Your task to perform on an android device: Open the calendar app, open the side menu, and click the "Day" option Image 0: 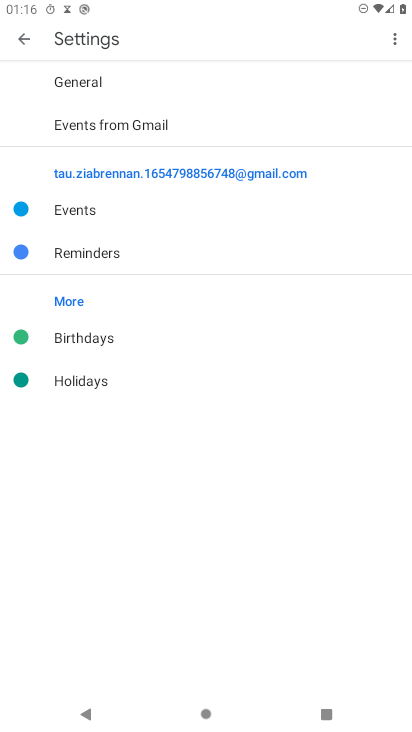
Step 0: press home button
Your task to perform on an android device: Open the calendar app, open the side menu, and click the "Day" option Image 1: 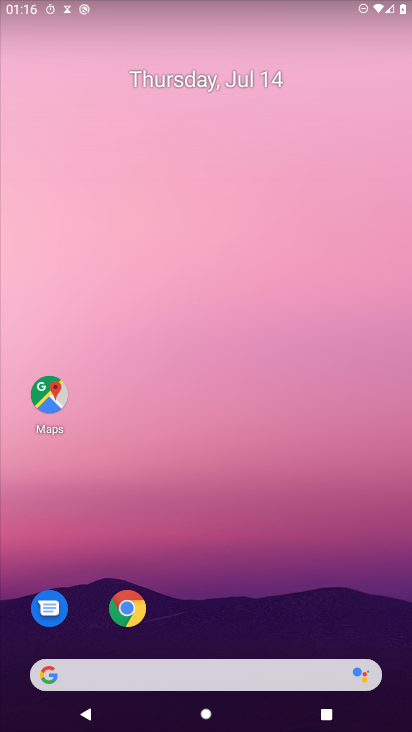
Step 1: drag from (270, 562) to (239, 84)
Your task to perform on an android device: Open the calendar app, open the side menu, and click the "Day" option Image 2: 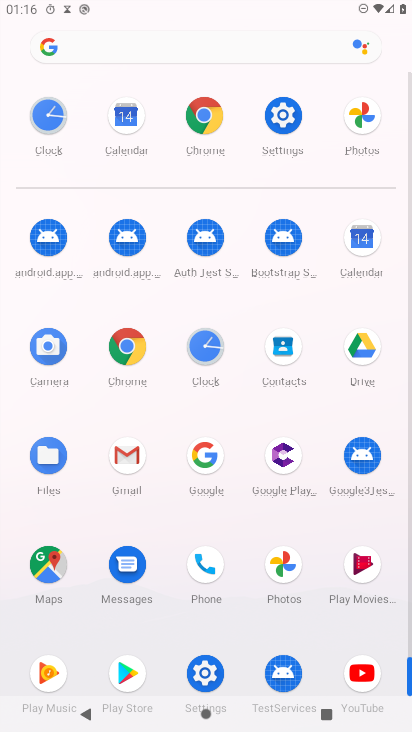
Step 2: click (351, 233)
Your task to perform on an android device: Open the calendar app, open the side menu, and click the "Day" option Image 3: 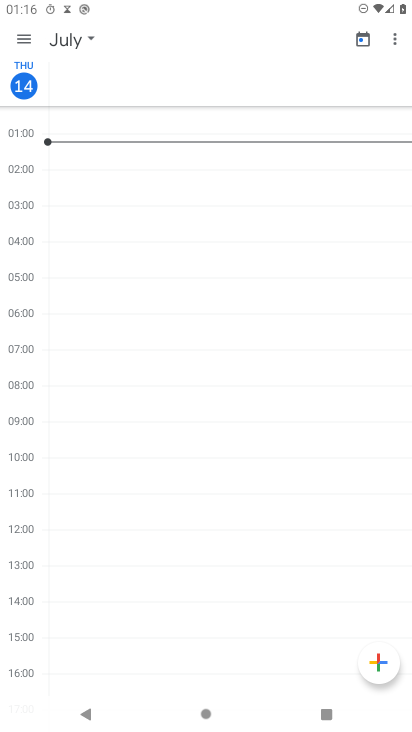
Step 3: click (30, 39)
Your task to perform on an android device: Open the calendar app, open the side menu, and click the "Day" option Image 4: 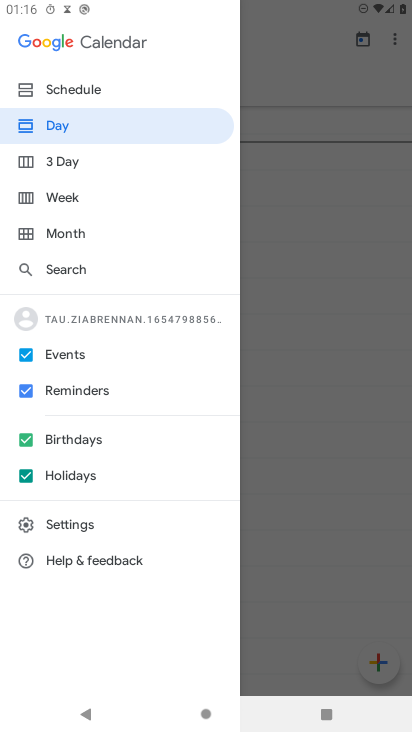
Step 4: click (50, 121)
Your task to perform on an android device: Open the calendar app, open the side menu, and click the "Day" option Image 5: 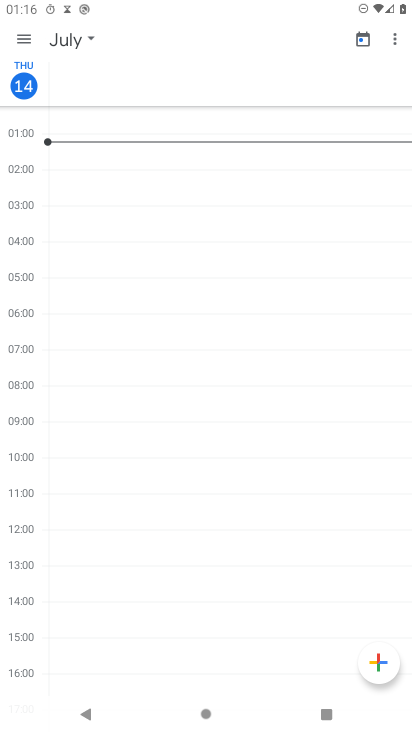
Step 5: task complete